Your task to perform on an android device: Open sound settings Image 0: 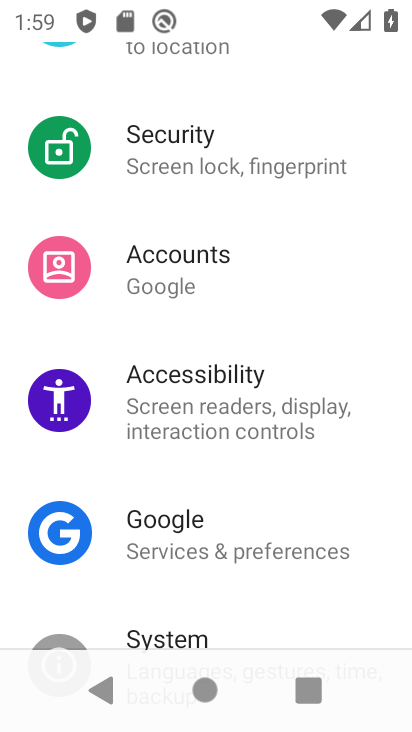
Step 0: press home button
Your task to perform on an android device: Open sound settings Image 1: 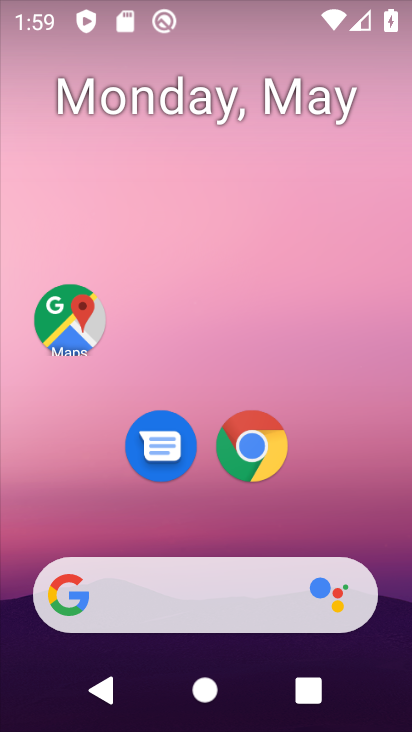
Step 1: drag from (355, 479) to (345, 175)
Your task to perform on an android device: Open sound settings Image 2: 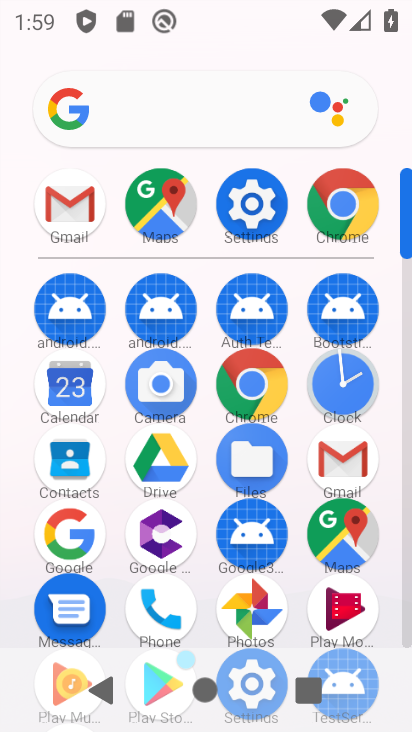
Step 2: click (257, 217)
Your task to perform on an android device: Open sound settings Image 3: 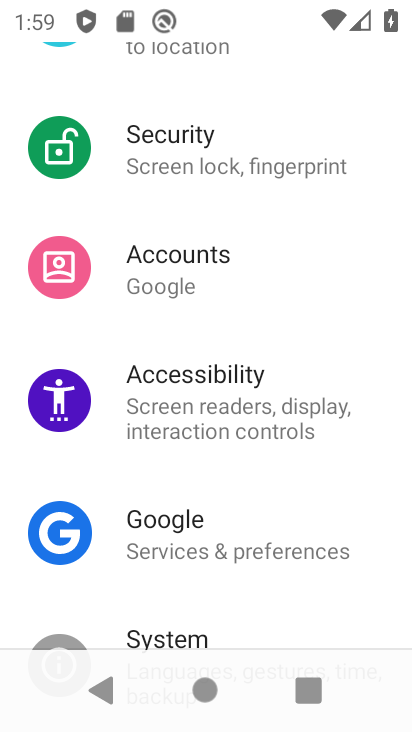
Step 3: drag from (264, 186) to (264, 492)
Your task to perform on an android device: Open sound settings Image 4: 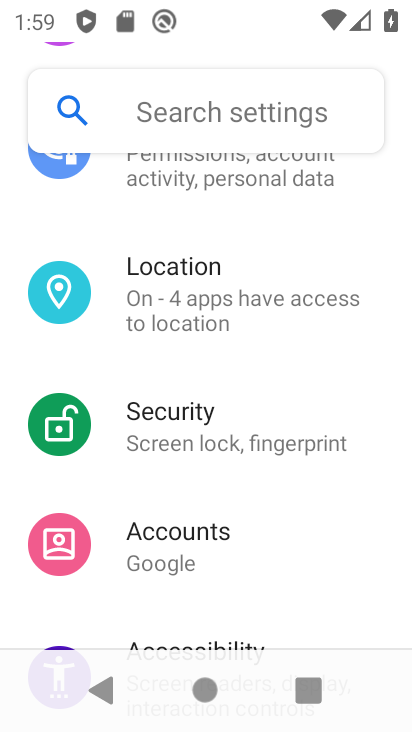
Step 4: drag from (339, 274) to (269, 583)
Your task to perform on an android device: Open sound settings Image 5: 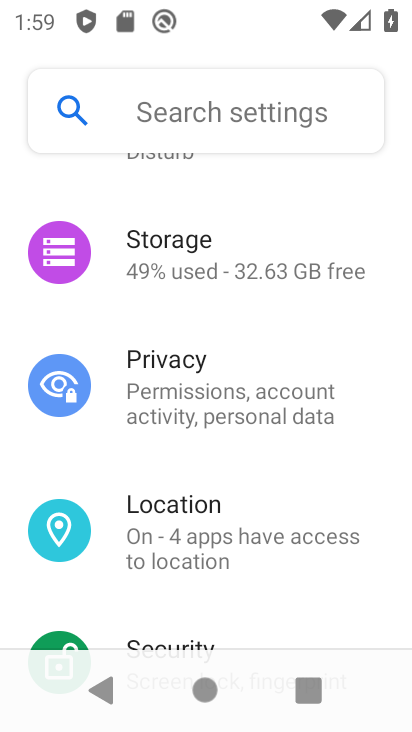
Step 5: drag from (278, 219) to (272, 584)
Your task to perform on an android device: Open sound settings Image 6: 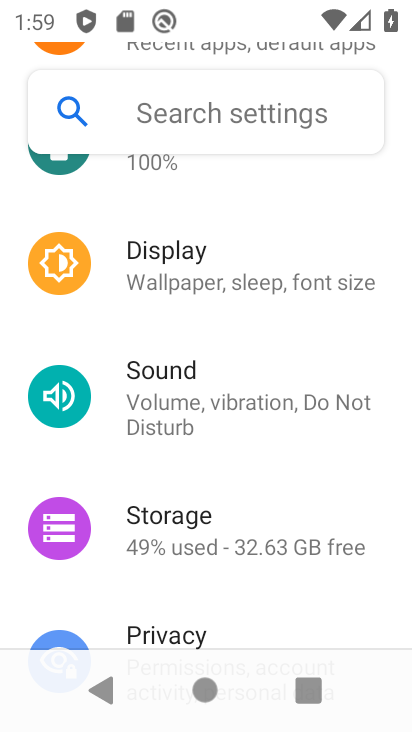
Step 6: click (241, 401)
Your task to perform on an android device: Open sound settings Image 7: 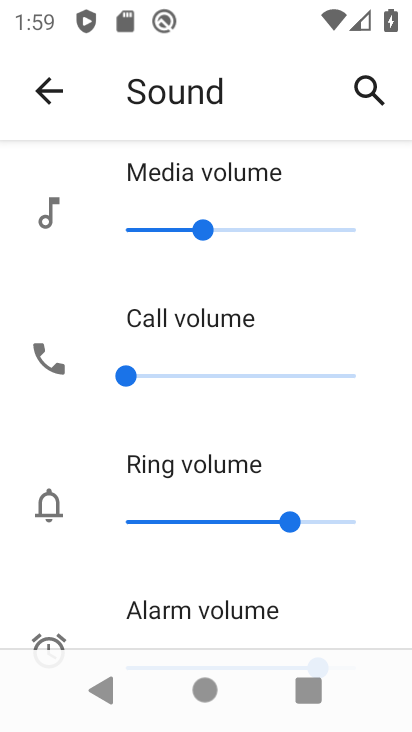
Step 7: task complete